Your task to perform on an android device: turn notification dots off Image 0: 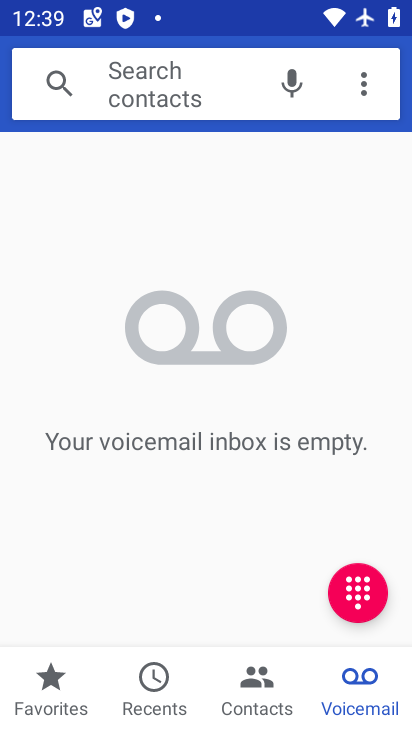
Step 0: press home button
Your task to perform on an android device: turn notification dots off Image 1: 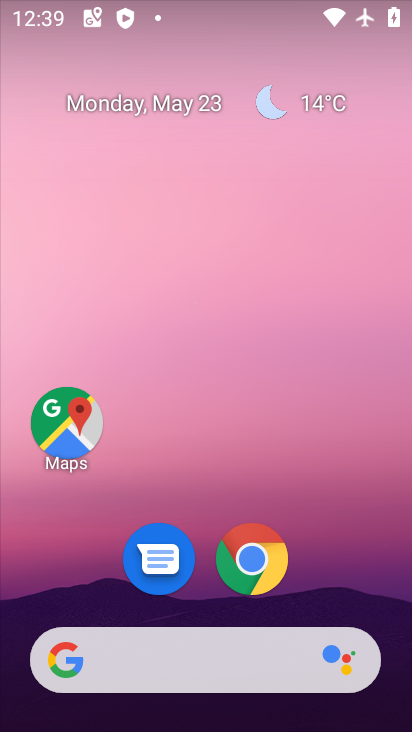
Step 1: drag from (357, 267) to (359, 13)
Your task to perform on an android device: turn notification dots off Image 2: 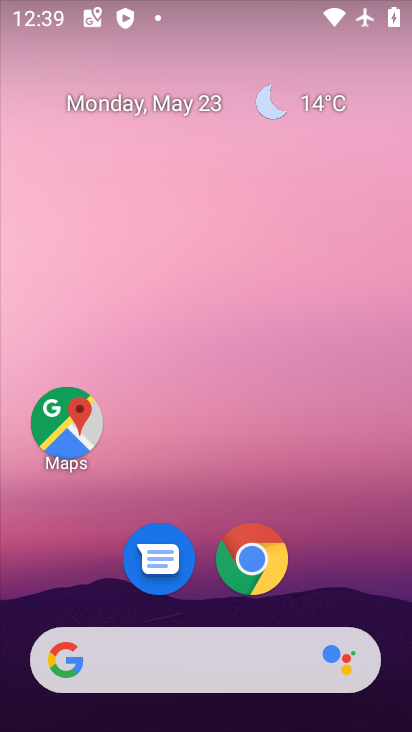
Step 2: drag from (326, 601) to (392, 6)
Your task to perform on an android device: turn notification dots off Image 3: 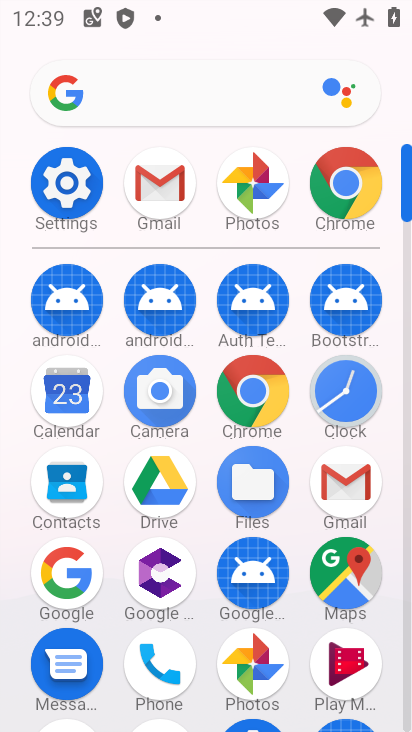
Step 3: click (56, 182)
Your task to perform on an android device: turn notification dots off Image 4: 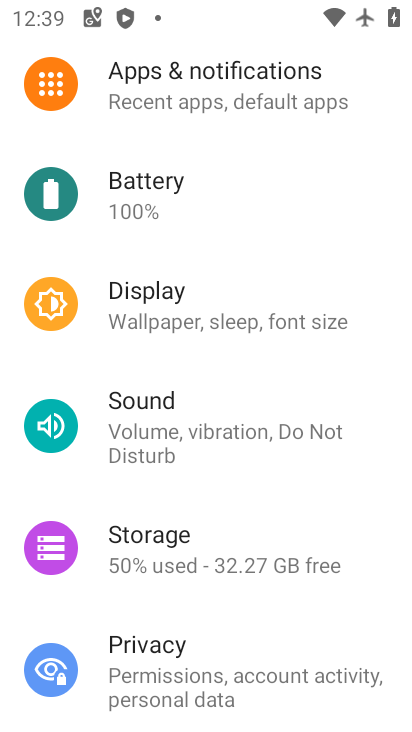
Step 4: click (202, 109)
Your task to perform on an android device: turn notification dots off Image 5: 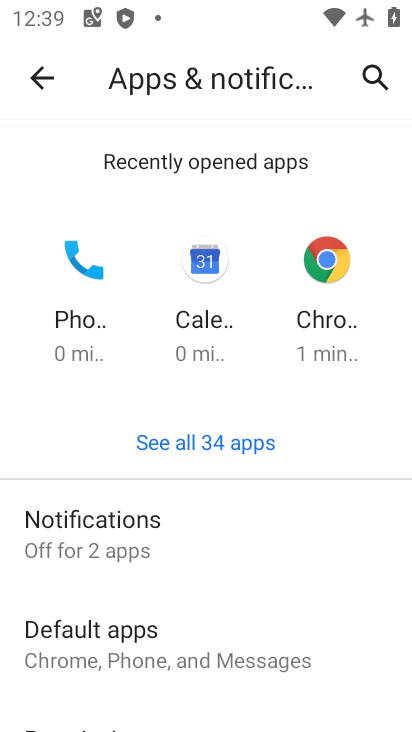
Step 5: click (88, 543)
Your task to perform on an android device: turn notification dots off Image 6: 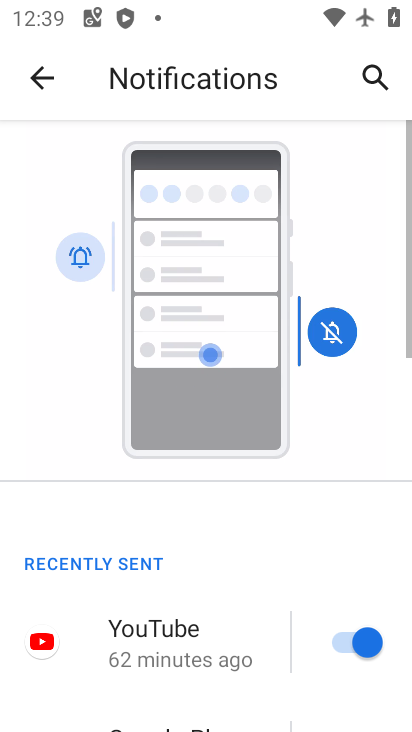
Step 6: drag from (188, 641) to (186, 131)
Your task to perform on an android device: turn notification dots off Image 7: 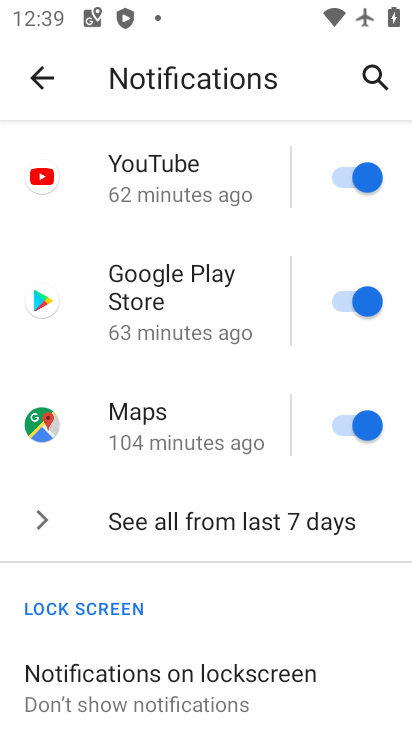
Step 7: drag from (163, 592) to (167, 228)
Your task to perform on an android device: turn notification dots off Image 8: 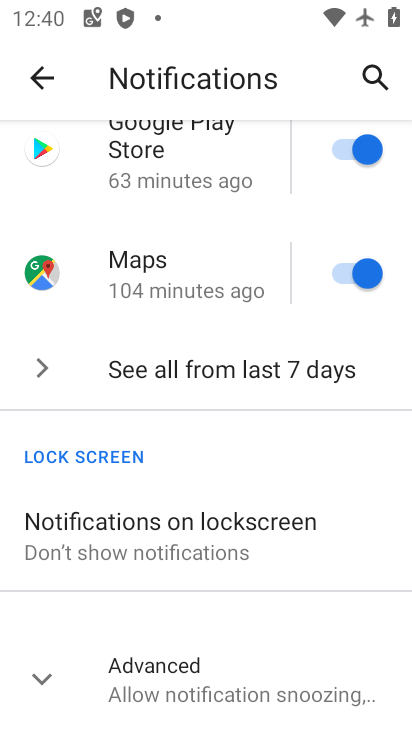
Step 8: click (38, 685)
Your task to perform on an android device: turn notification dots off Image 9: 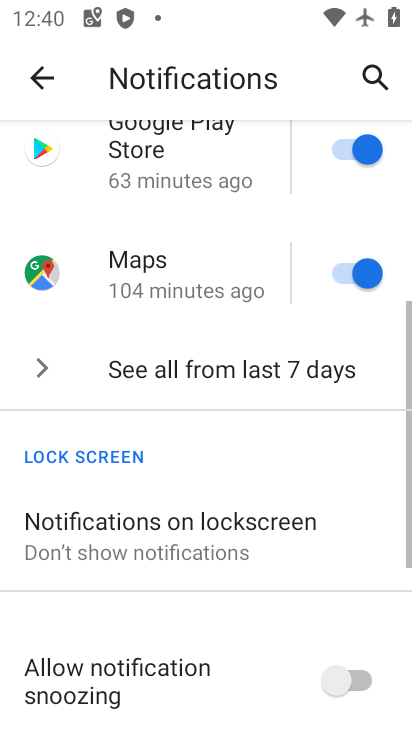
Step 9: task complete